Your task to perform on an android device: turn on notifications settings in the gmail app Image 0: 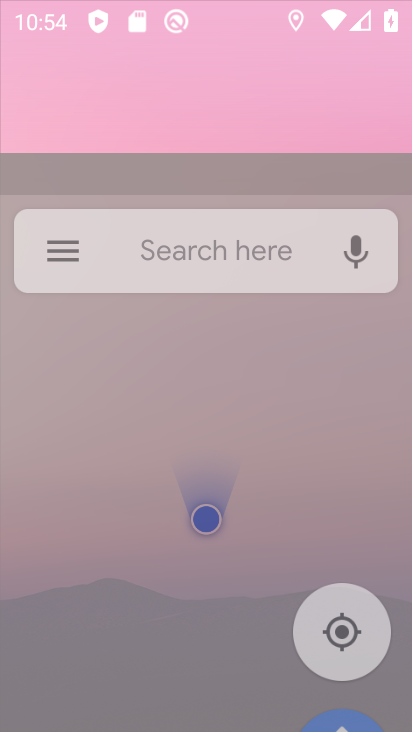
Step 0: drag from (265, 404) to (227, 208)
Your task to perform on an android device: turn on notifications settings in the gmail app Image 1: 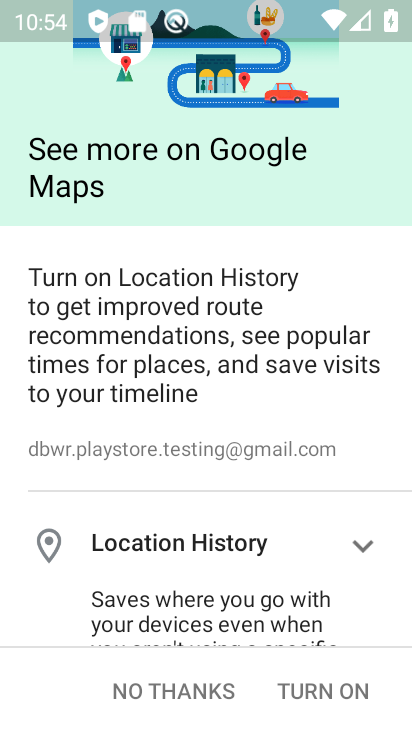
Step 1: press back button
Your task to perform on an android device: turn on notifications settings in the gmail app Image 2: 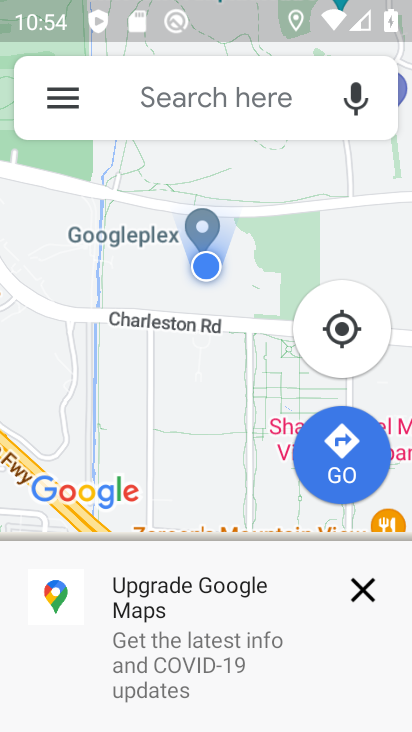
Step 2: press home button
Your task to perform on an android device: turn on notifications settings in the gmail app Image 3: 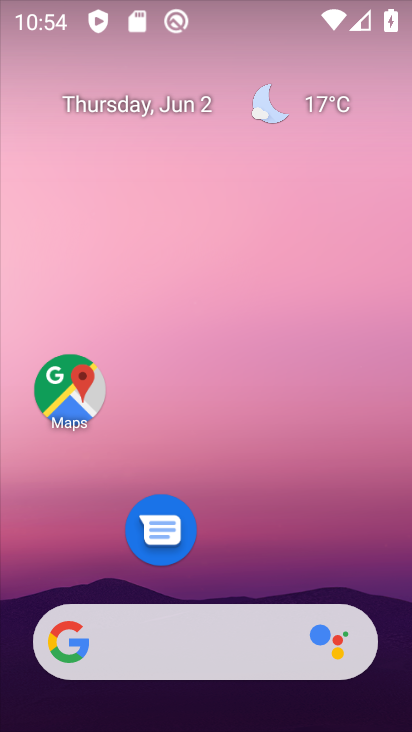
Step 3: drag from (236, 546) to (168, 31)
Your task to perform on an android device: turn on notifications settings in the gmail app Image 4: 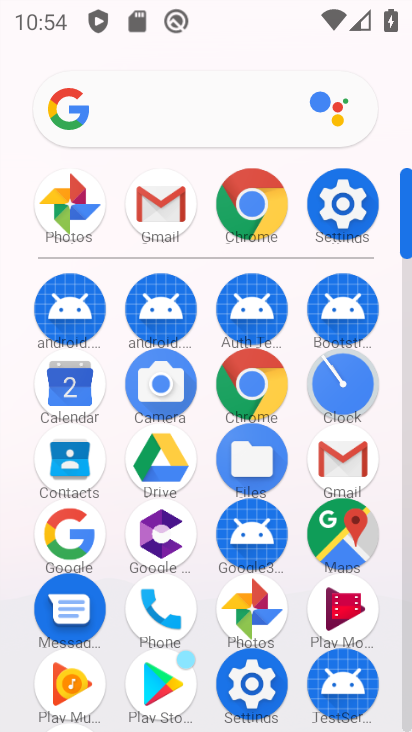
Step 4: click (324, 452)
Your task to perform on an android device: turn on notifications settings in the gmail app Image 5: 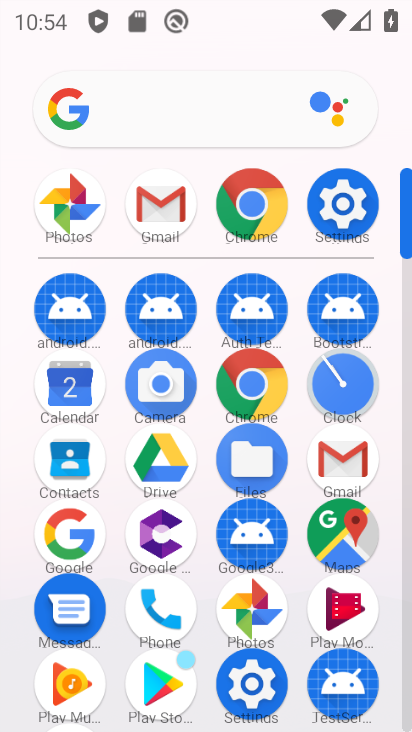
Step 5: click (324, 452)
Your task to perform on an android device: turn on notifications settings in the gmail app Image 6: 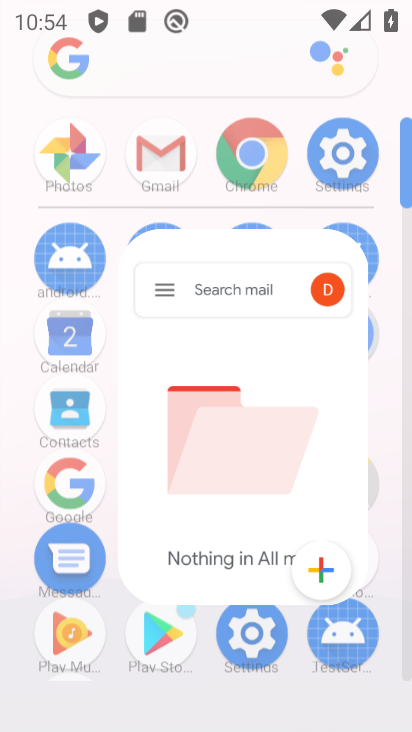
Step 6: click (326, 455)
Your task to perform on an android device: turn on notifications settings in the gmail app Image 7: 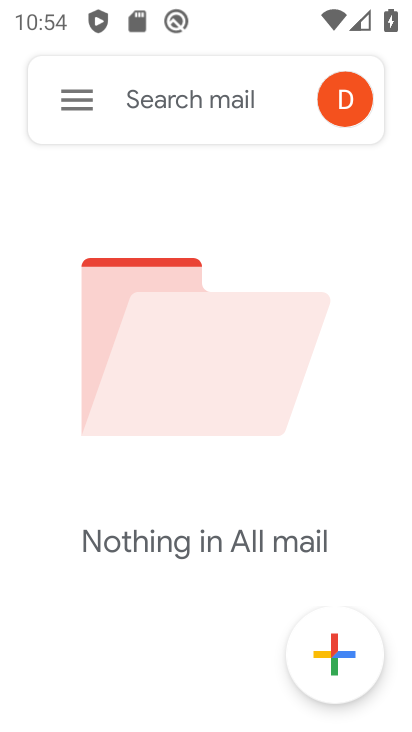
Step 7: click (328, 457)
Your task to perform on an android device: turn on notifications settings in the gmail app Image 8: 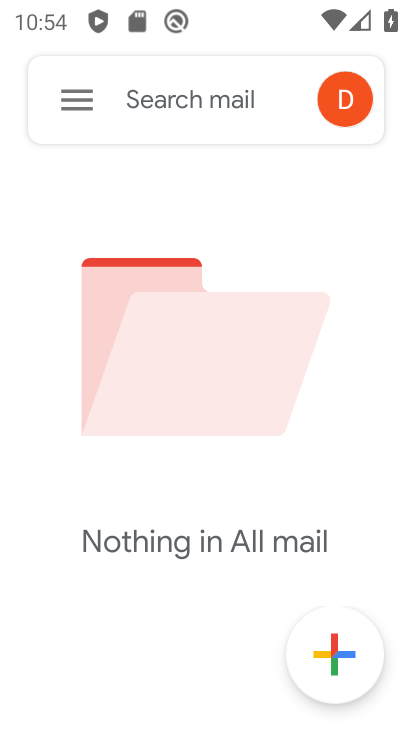
Step 8: click (91, 106)
Your task to perform on an android device: turn on notifications settings in the gmail app Image 9: 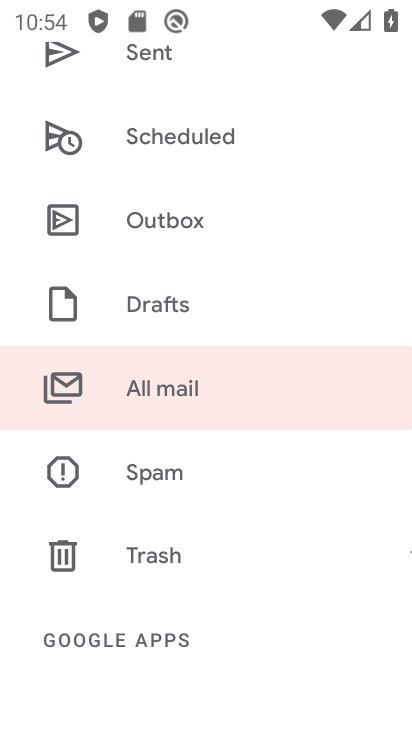
Step 9: drag from (209, 534) to (161, 133)
Your task to perform on an android device: turn on notifications settings in the gmail app Image 10: 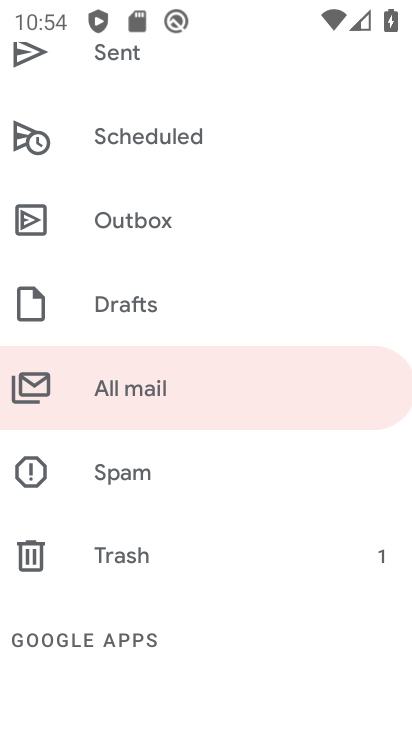
Step 10: drag from (237, 448) to (207, 88)
Your task to perform on an android device: turn on notifications settings in the gmail app Image 11: 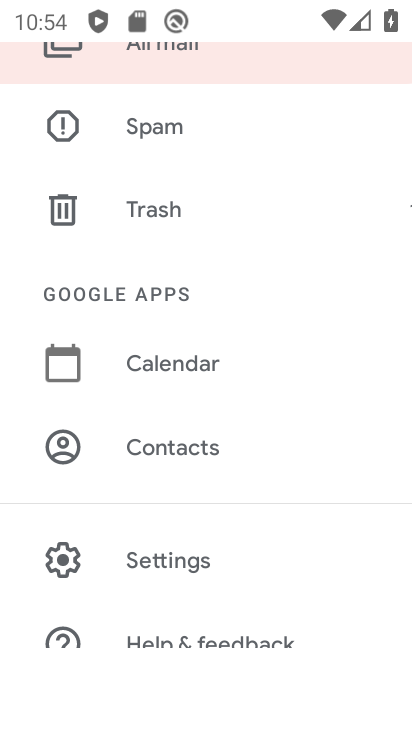
Step 11: drag from (169, 324) to (147, 178)
Your task to perform on an android device: turn on notifications settings in the gmail app Image 12: 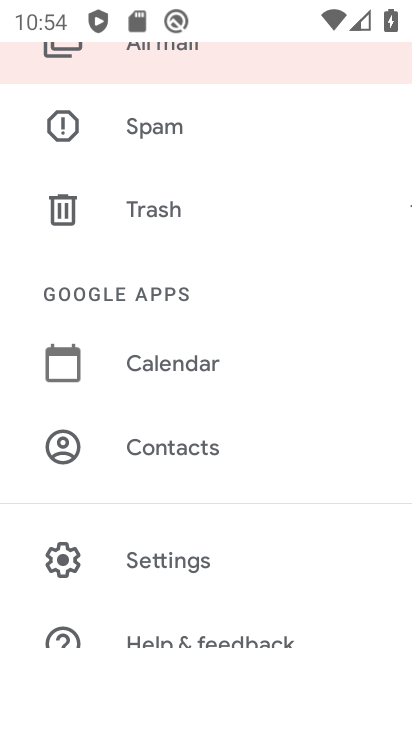
Step 12: drag from (159, 386) to (167, 180)
Your task to perform on an android device: turn on notifications settings in the gmail app Image 13: 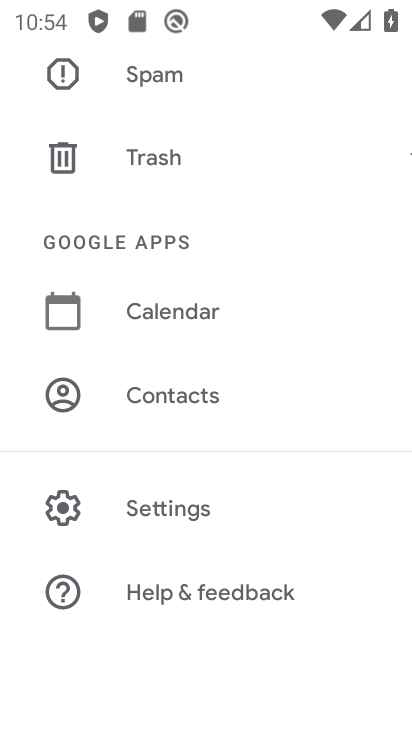
Step 13: click (147, 509)
Your task to perform on an android device: turn on notifications settings in the gmail app Image 14: 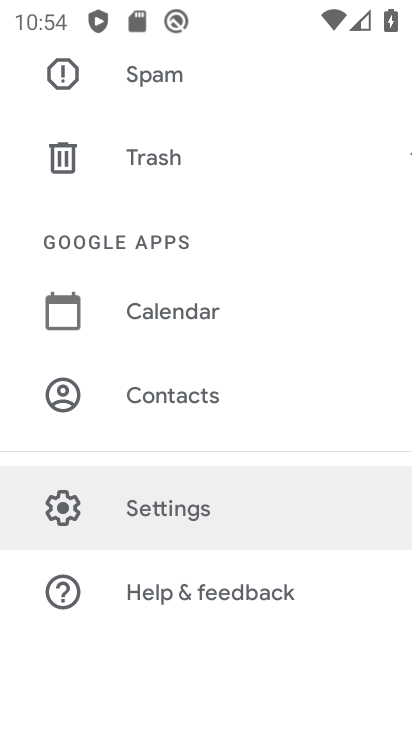
Step 14: click (148, 509)
Your task to perform on an android device: turn on notifications settings in the gmail app Image 15: 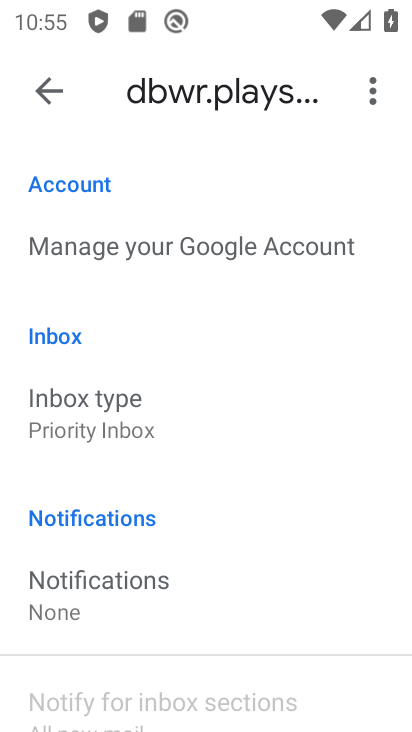
Step 15: click (76, 583)
Your task to perform on an android device: turn on notifications settings in the gmail app Image 16: 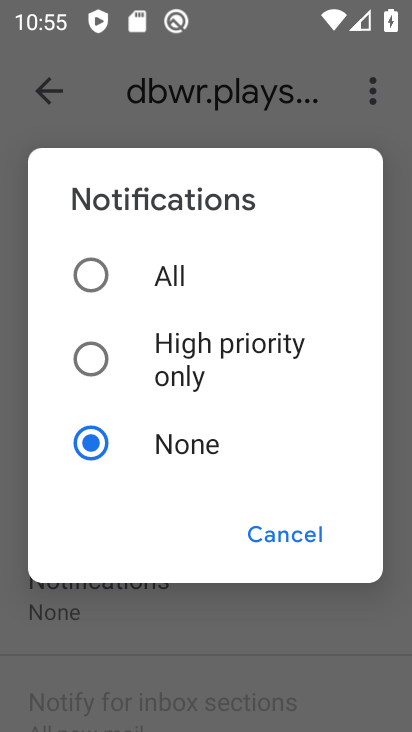
Step 16: click (92, 264)
Your task to perform on an android device: turn on notifications settings in the gmail app Image 17: 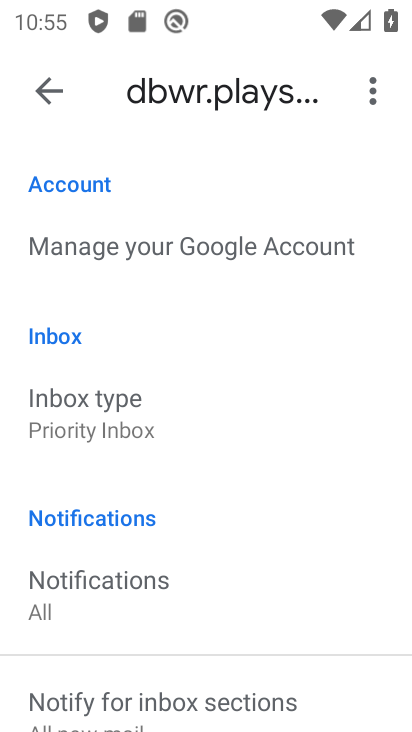
Step 17: task complete